Your task to perform on an android device: Show me the alarms in the clock app Image 0: 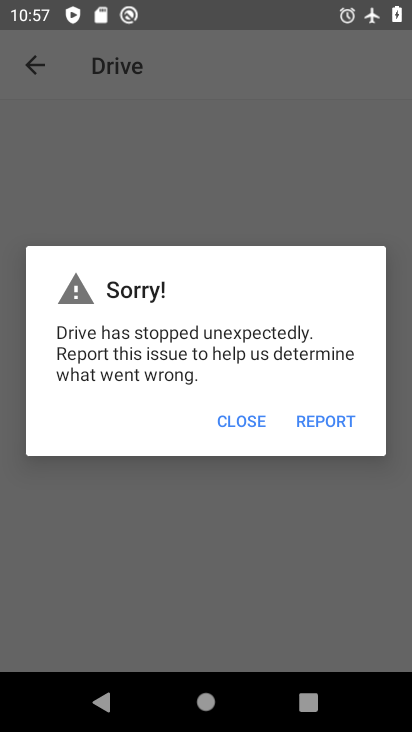
Step 0: drag from (257, 615) to (269, 565)
Your task to perform on an android device: Show me the alarms in the clock app Image 1: 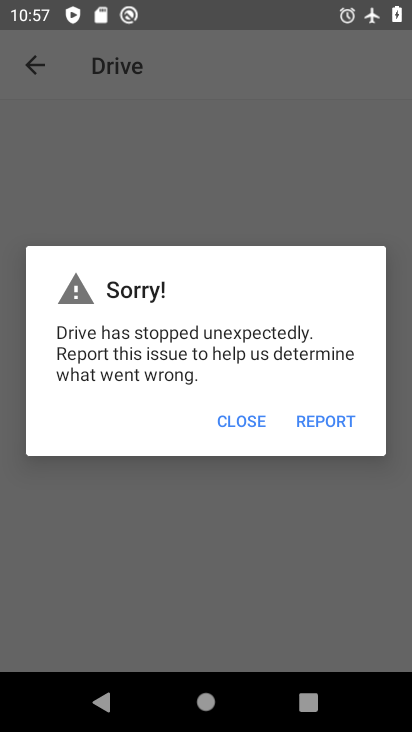
Step 1: press home button
Your task to perform on an android device: Show me the alarms in the clock app Image 2: 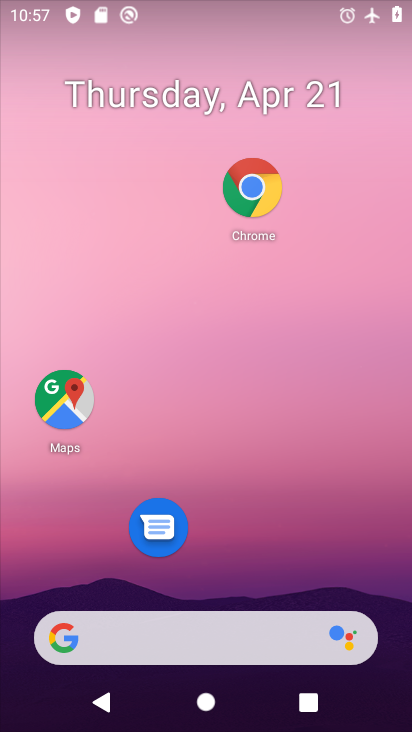
Step 2: drag from (235, 615) to (259, 191)
Your task to perform on an android device: Show me the alarms in the clock app Image 3: 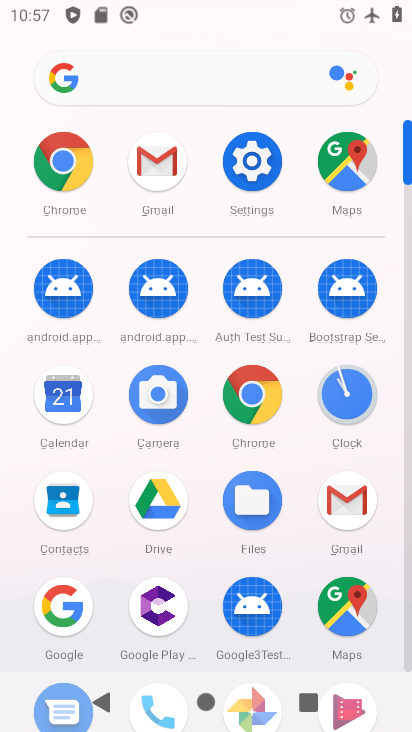
Step 3: click (264, 408)
Your task to perform on an android device: Show me the alarms in the clock app Image 4: 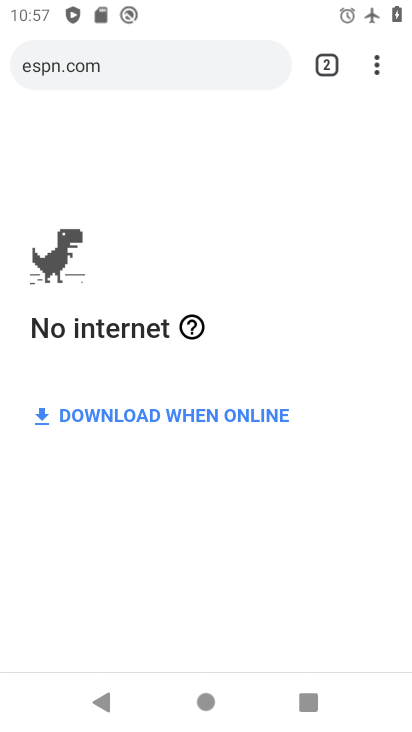
Step 4: press home button
Your task to perform on an android device: Show me the alarms in the clock app Image 5: 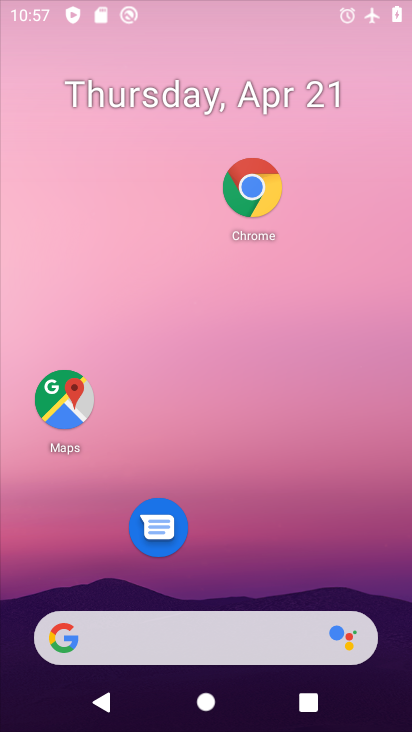
Step 5: drag from (260, 513) to (292, 151)
Your task to perform on an android device: Show me the alarms in the clock app Image 6: 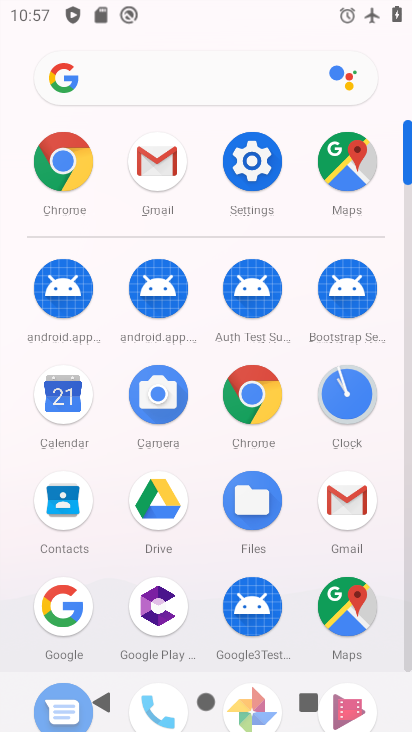
Step 6: click (355, 400)
Your task to perform on an android device: Show me the alarms in the clock app Image 7: 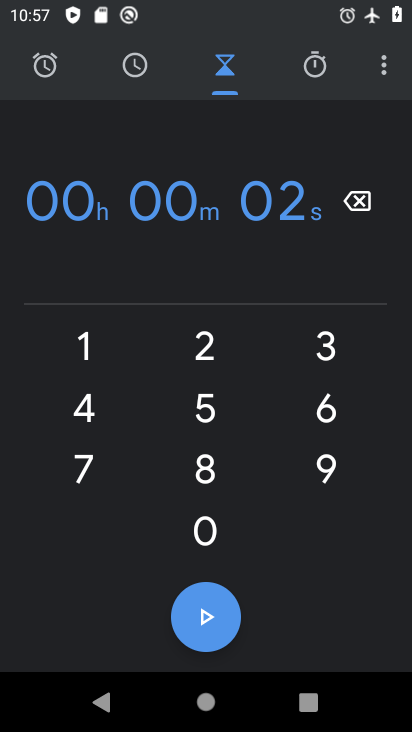
Step 7: click (55, 94)
Your task to perform on an android device: Show me the alarms in the clock app Image 8: 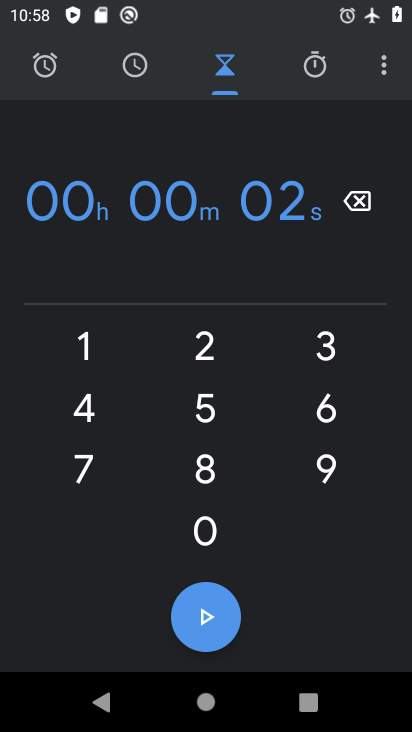
Step 8: click (57, 74)
Your task to perform on an android device: Show me the alarms in the clock app Image 9: 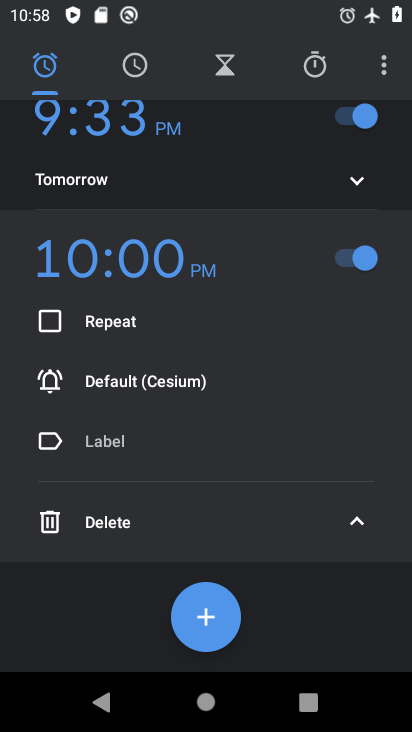
Step 9: click (192, 517)
Your task to perform on an android device: Show me the alarms in the clock app Image 10: 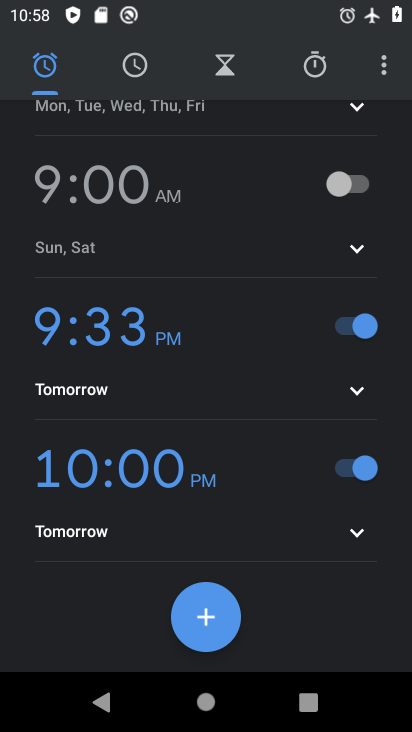
Step 10: task complete